Your task to perform on an android device: all mails in gmail Image 0: 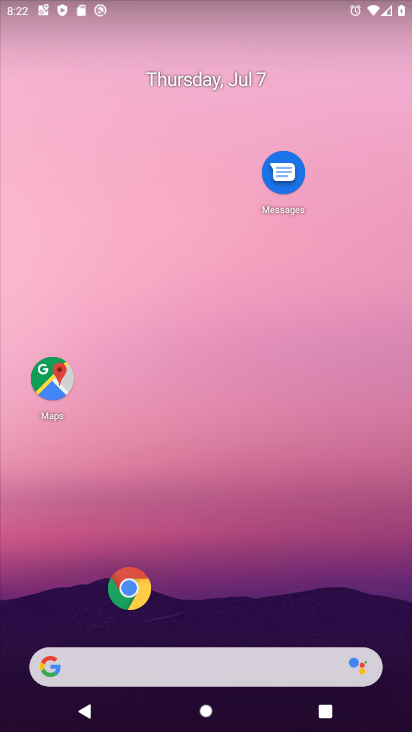
Step 0: drag from (16, 687) to (316, 594)
Your task to perform on an android device: all mails in gmail Image 1: 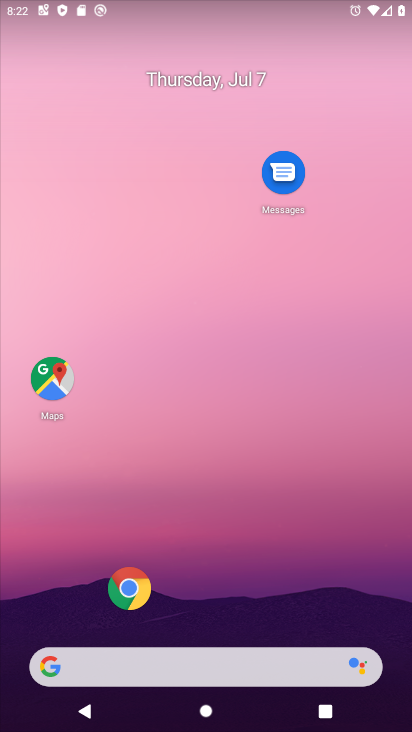
Step 1: click (130, 498)
Your task to perform on an android device: all mails in gmail Image 2: 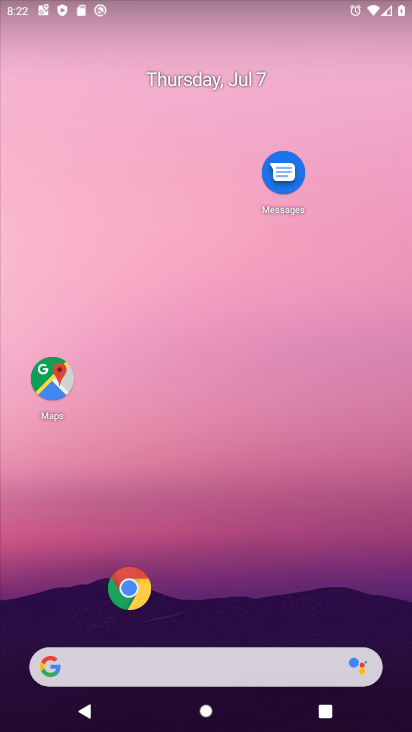
Step 2: drag from (71, 626) to (389, 11)
Your task to perform on an android device: all mails in gmail Image 3: 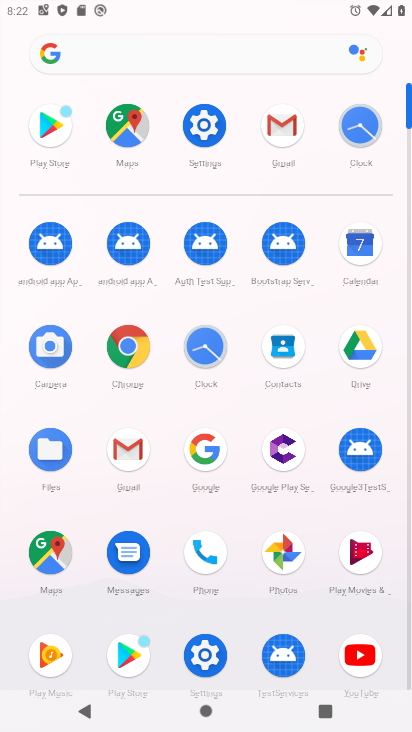
Step 3: click (119, 445)
Your task to perform on an android device: all mails in gmail Image 4: 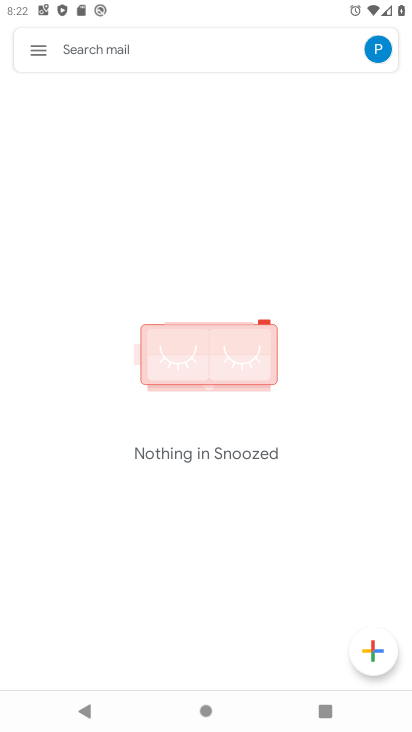
Step 4: click (32, 44)
Your task to perform on an android device: all mails in gmail Image 5: 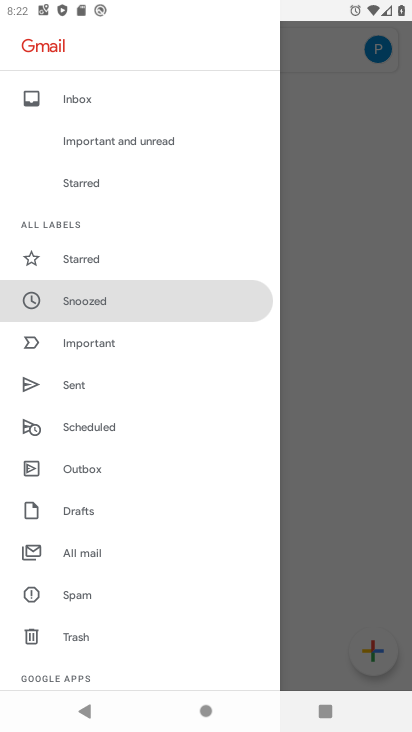
Step 5: click (88, 550)
Your task to perform on an android device: all mails in gmail Image 6: 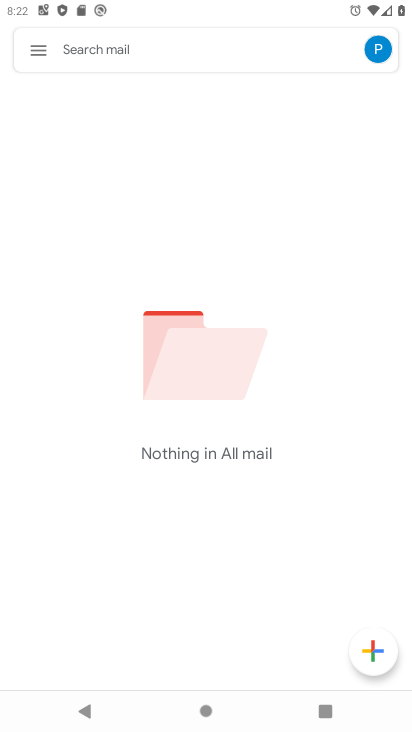
Step 6: task complete